Your task to perform on an android device: Open Chrome and go to settings Image 0: 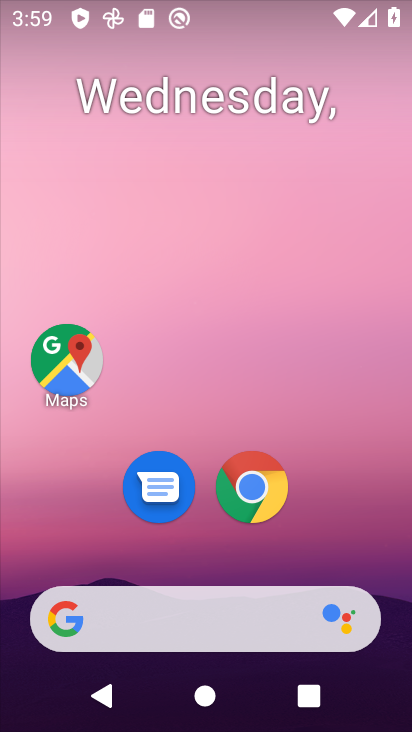
Step 0: drag from (376, 547) to (380, 210)
Your task to perform on an android device: Open Chrome and go to settings Image 1: 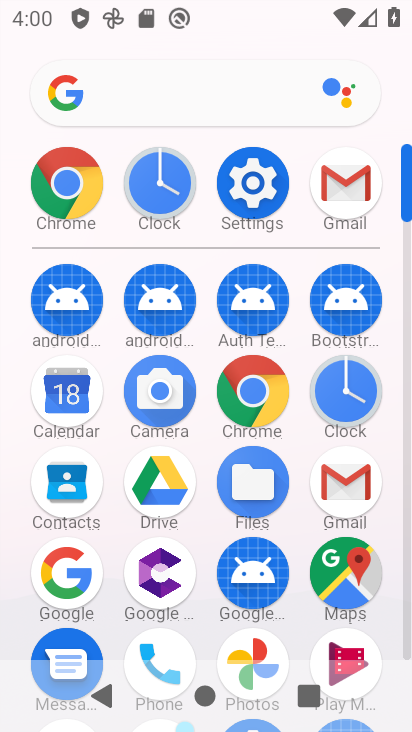
Step 1: click (275, 406)
Your task to perform on an android device: Open Chrome and go to settings Image 2: 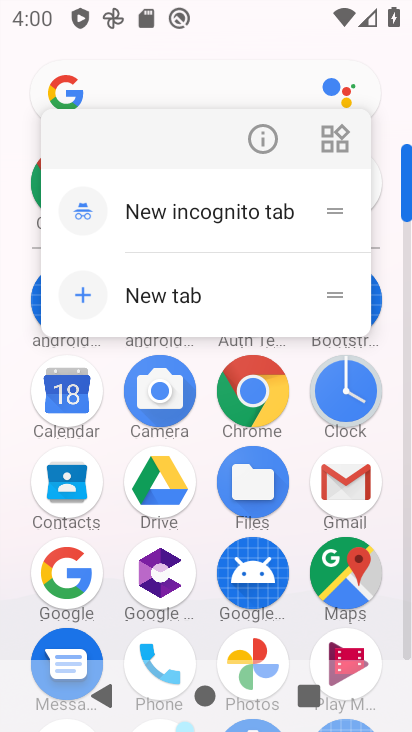
Step 2: click (274, 410)
Your task to perform on an android device: Open Chrome and go to settings Image 3: 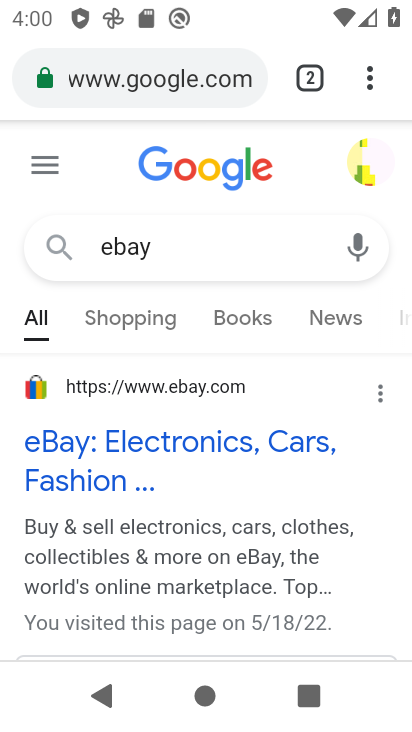
Step 3: click (371, 89)
Your task to perform on an android device: Open Chrome and go to settings Image 4: 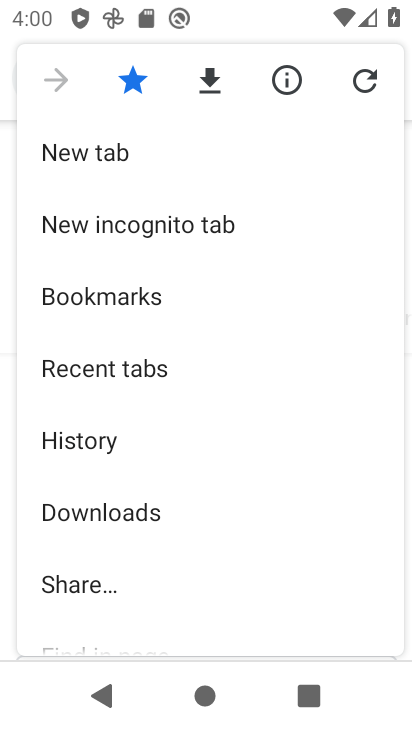
Step 4: drag from (301, 520) to (300, 418)
Your task to perform on an android device: Open Chrome and go to settings Image 5: 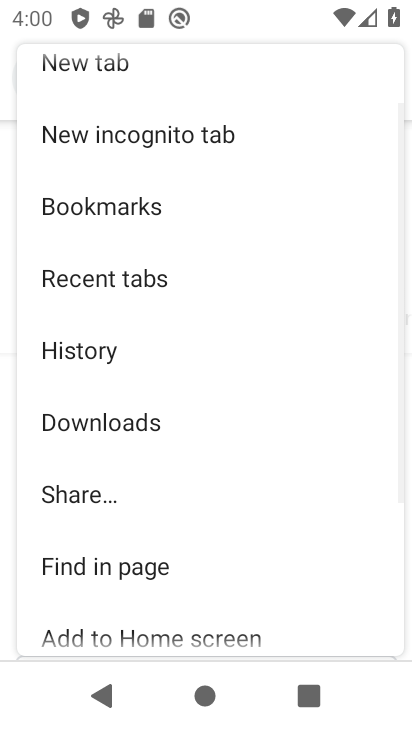
Step 5: drag from (282, 516) to (281, 425)
Your task to perform on an android device: Open Chrome and go to settings Image 6: 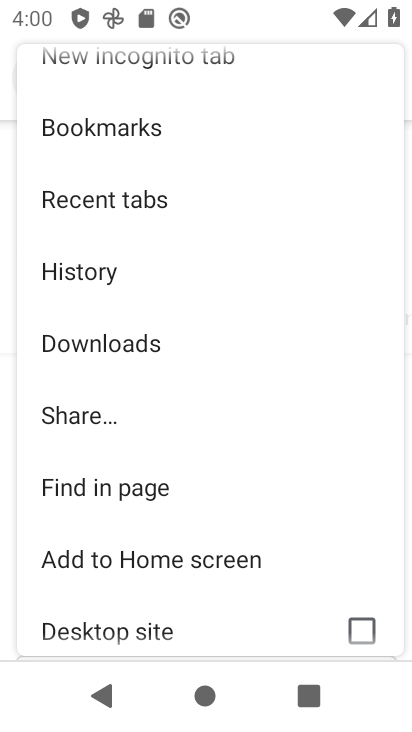
Step 6: drag from (265, 487) to (269, 409)
Your task to perform on an android device: Open Chrome and go to settings Image 7: 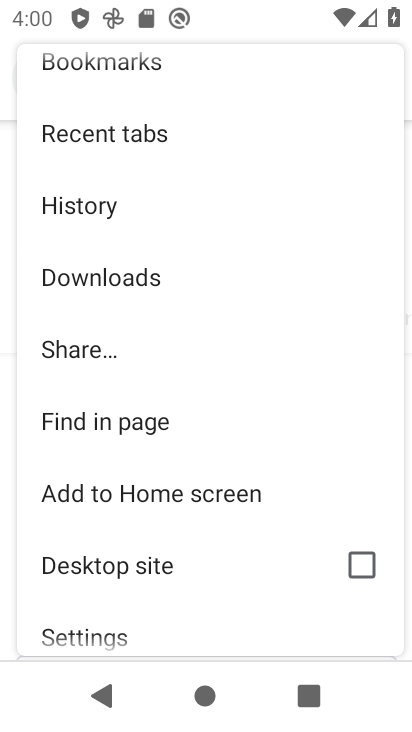
Step 7: drag from (262, 577) to (274, 471)
Your task to perform on an android device: Open Chrome and go to settings Image 8: 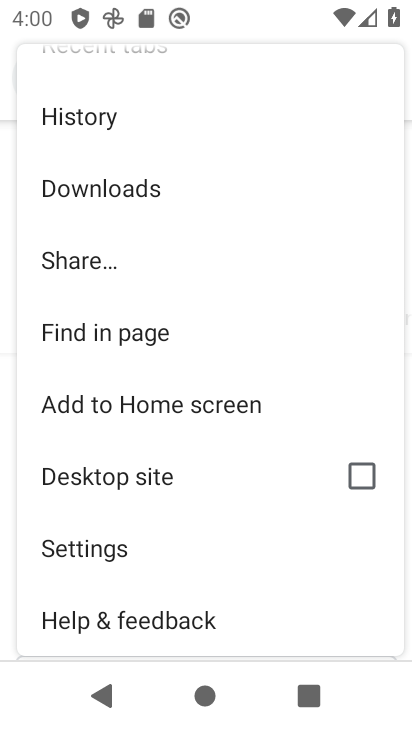
Step 8: drag from (241, 561) to (256, 471)
Your task to perform on an android device: Open Chrome and go to settings Image 9: 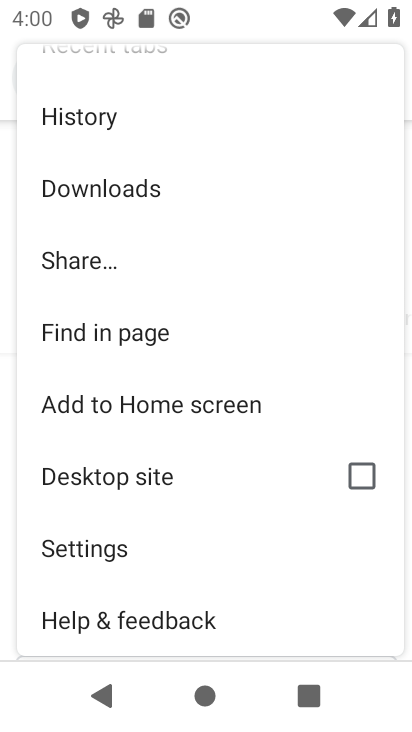
Step 9: click (106, 546)
Your task to perform on an android device: Open Chrome and go to settings Image 10: 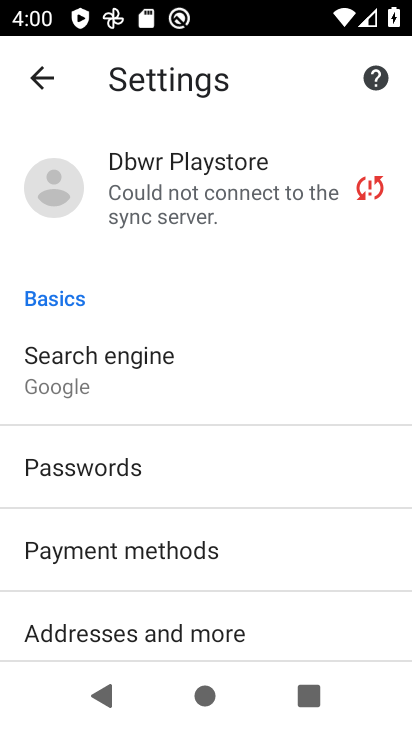
Step 10: task complete